Your task to perform on an android device: uninstall "ColorNote Notepad Notes" Image 0: 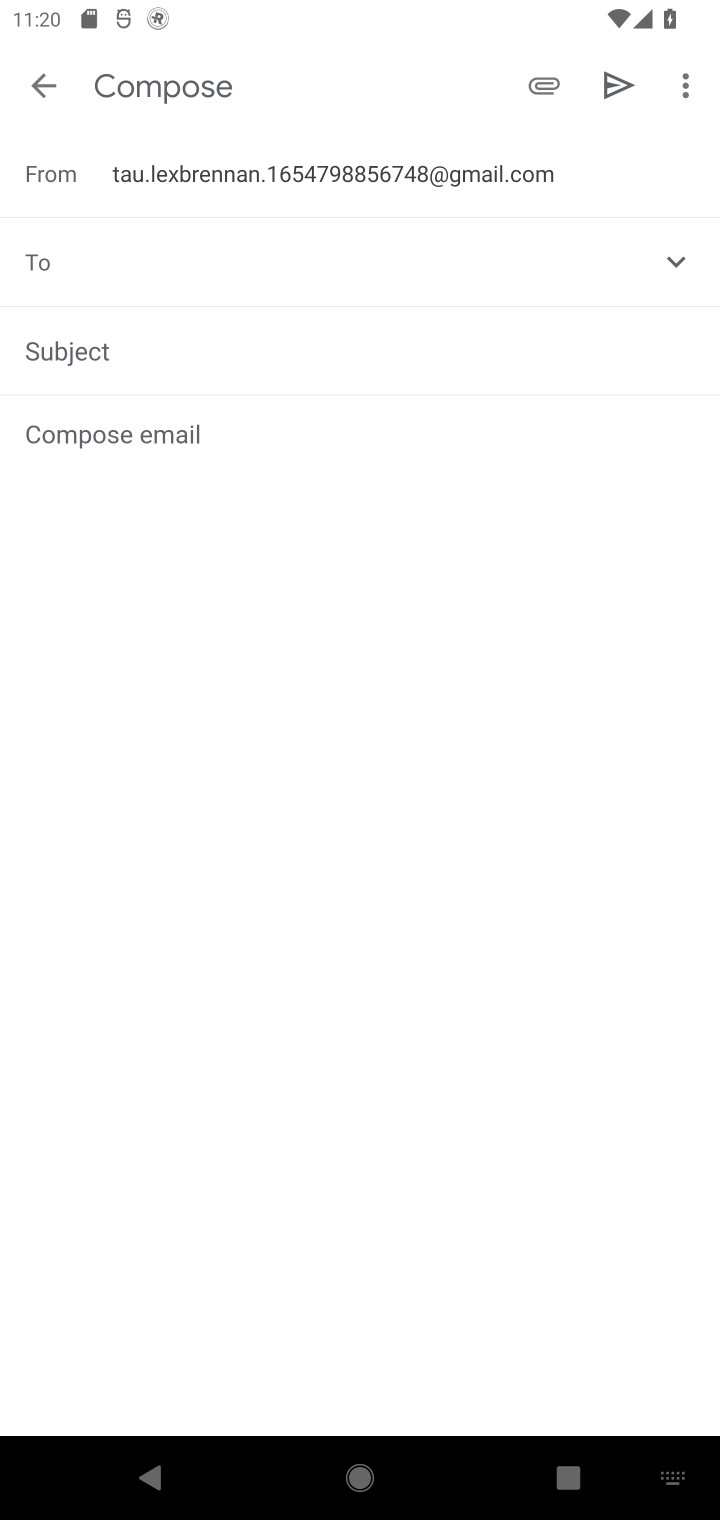
Step 0: press home button
Your task to perform on an android device: uninstall "ColorNote Notepad Notes" Image 1: 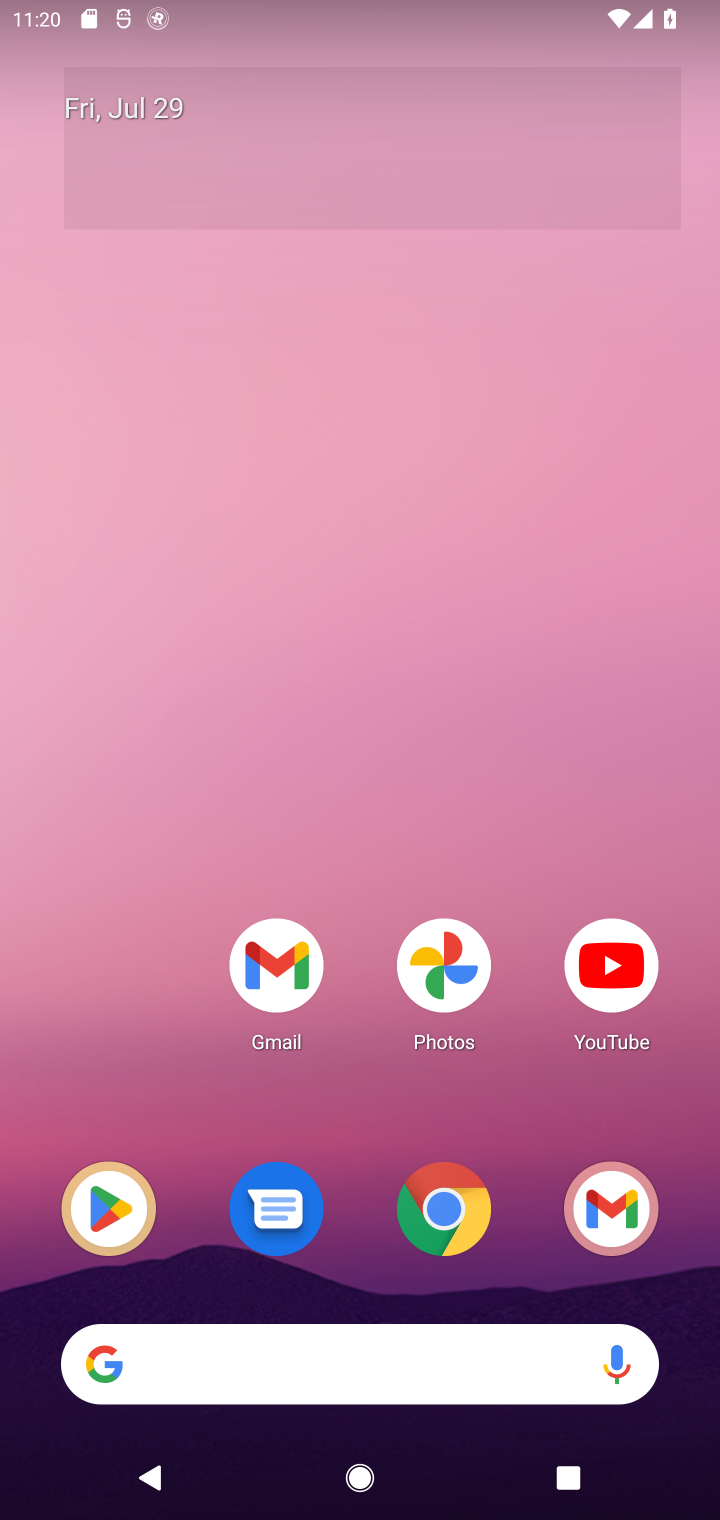
Step 1: drag from (489, 1073) to (462, 321)
Your task to perform on an android device: uninstall "ColorNote Notepad Notes" Image 2: 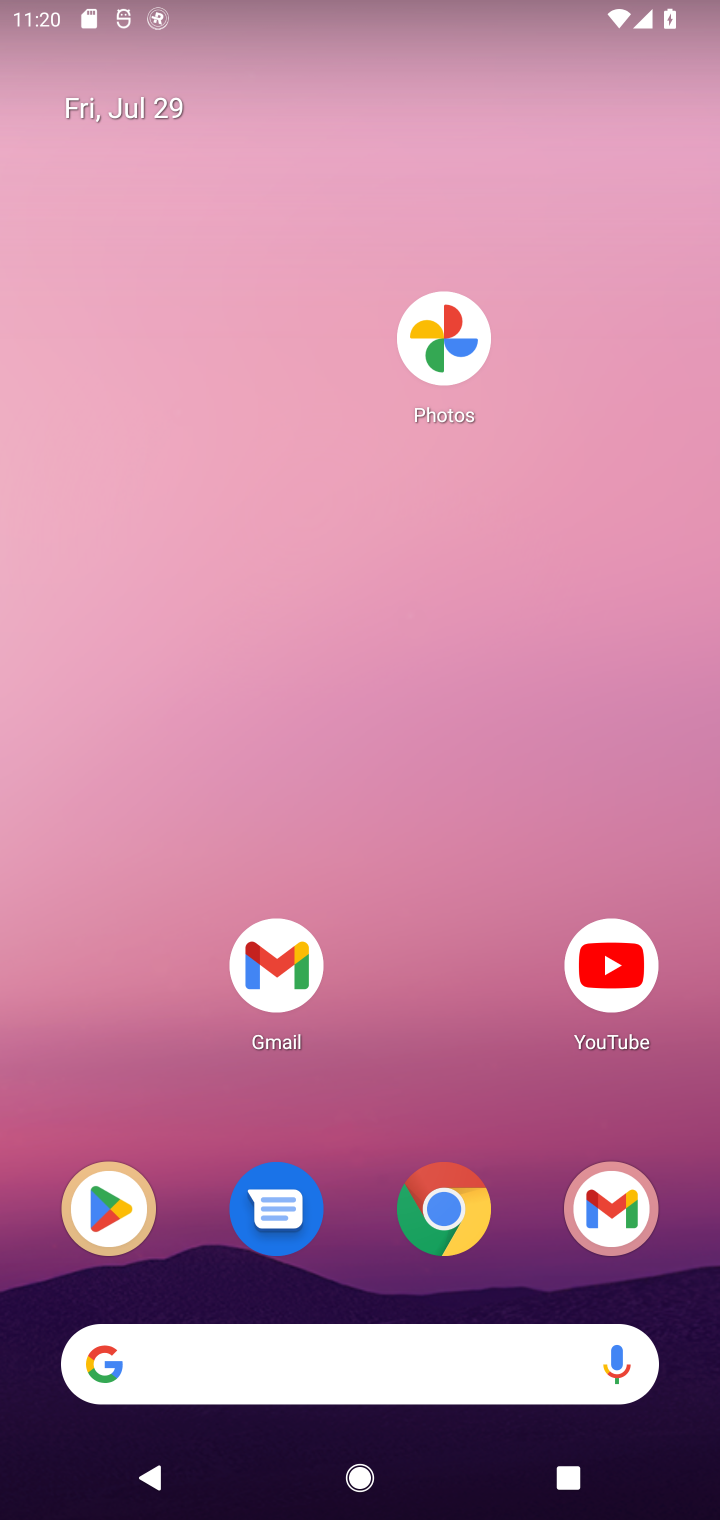
Step 2: drag from (466, 635) to (514, 209)
Your task to perform on an android device: uninstall "ColorNote Notepad Notes" Image 3: 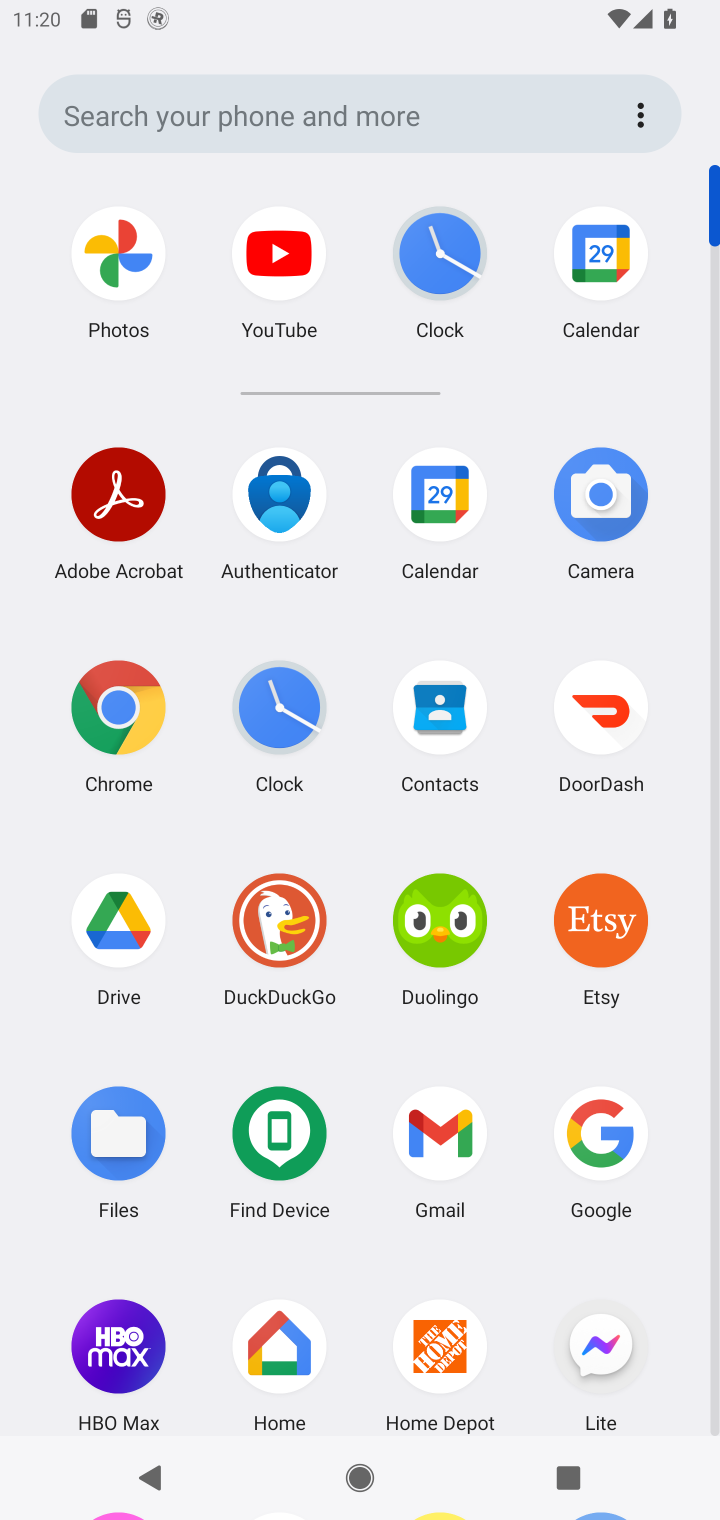
Step 3: drag from (524, 1232) to (510, 337)
Your task to perform on an android device: uninstall "ColorNote Notepad Notes" Image 4: 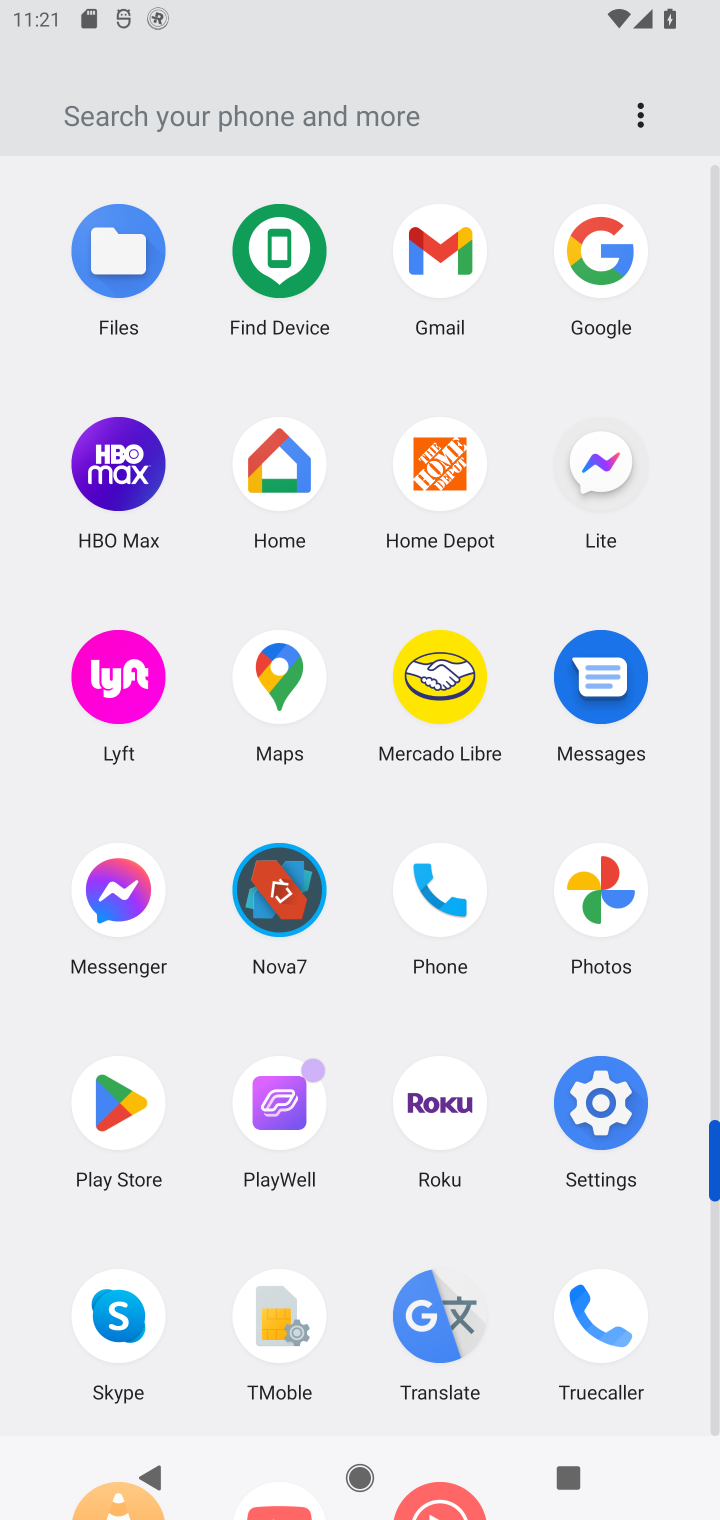
Step 4: click (101, 1124)
Your task to perform on an android device: uninstall "ColorNote Notepad Notes" Image 5: 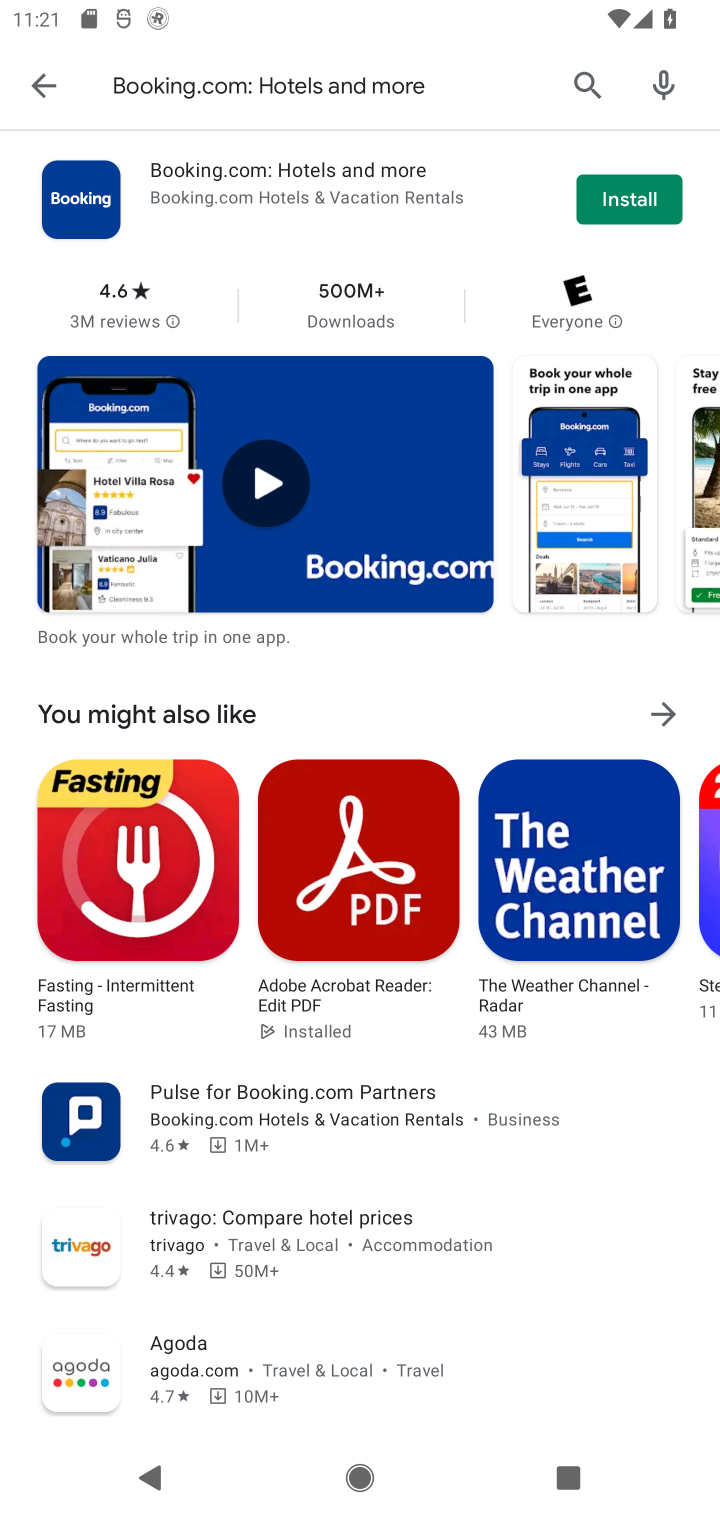
Step 5: click (299, 90)
Your task to perform on an android device: uninstall "ColorNote Notepad Notes" Image 6: 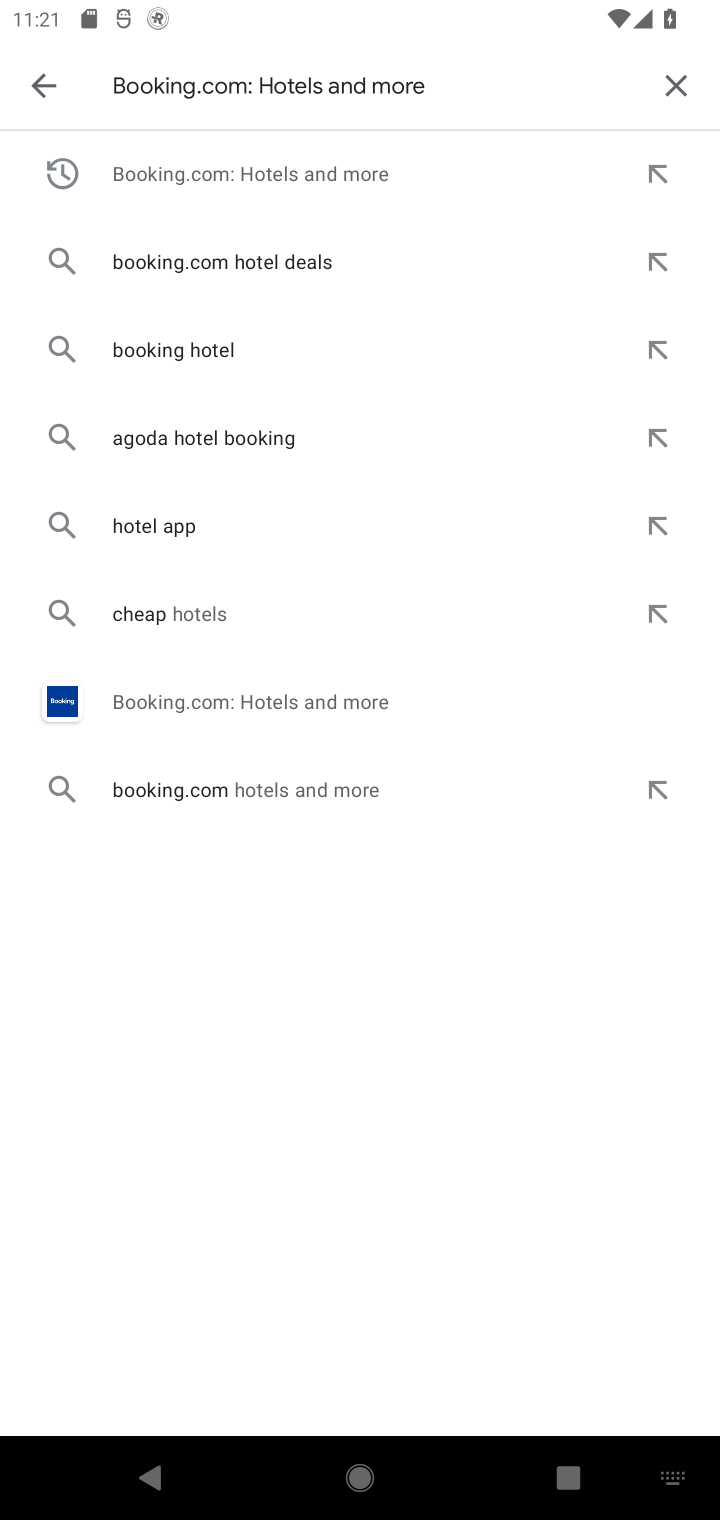
Step 6: click (679, 79)
Your task to perform on an android device: uninstall "ColorNote Notepad Notes" Image 7: 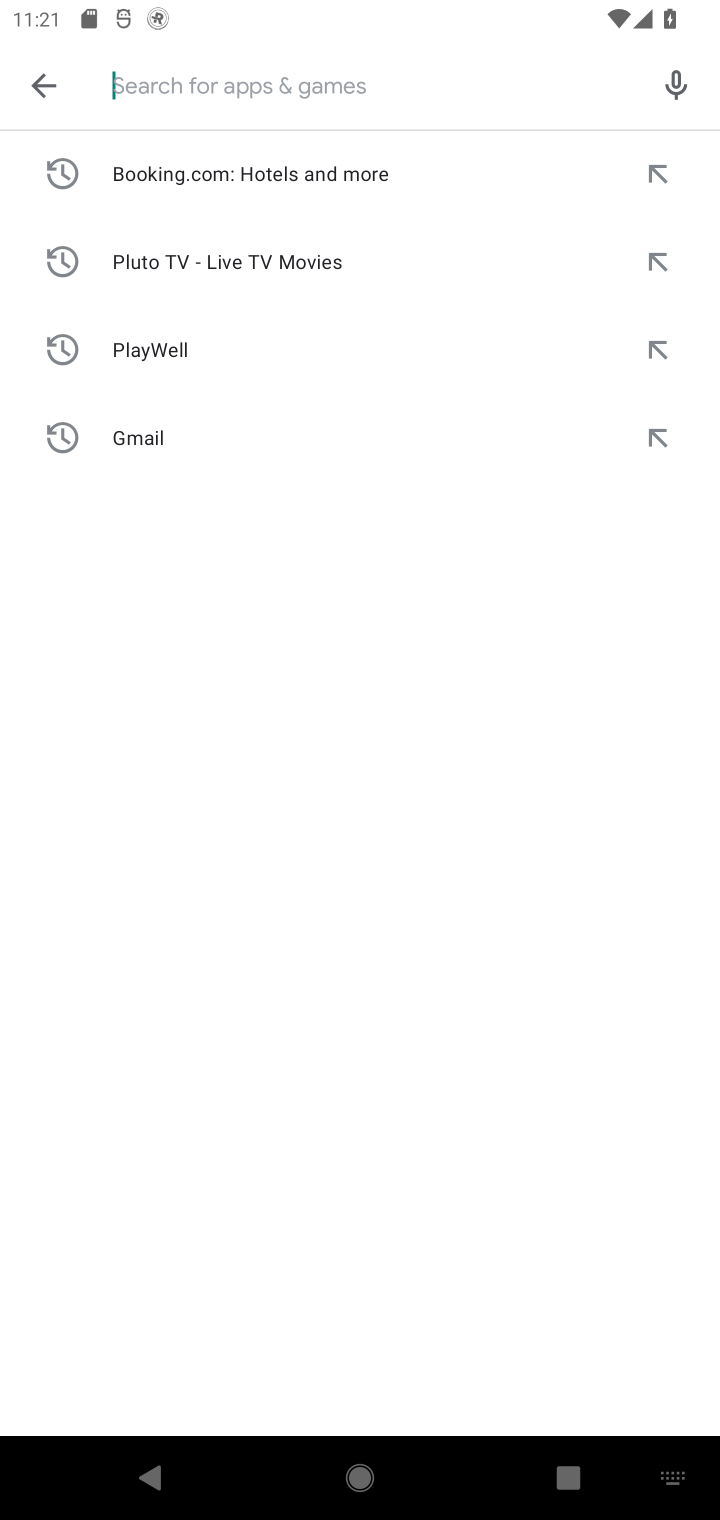
Step 7: type "ColorNote Notepad Notes"
Your task to perform on an android device: uninstall "ColorNote Notepad Notes" Image 8: 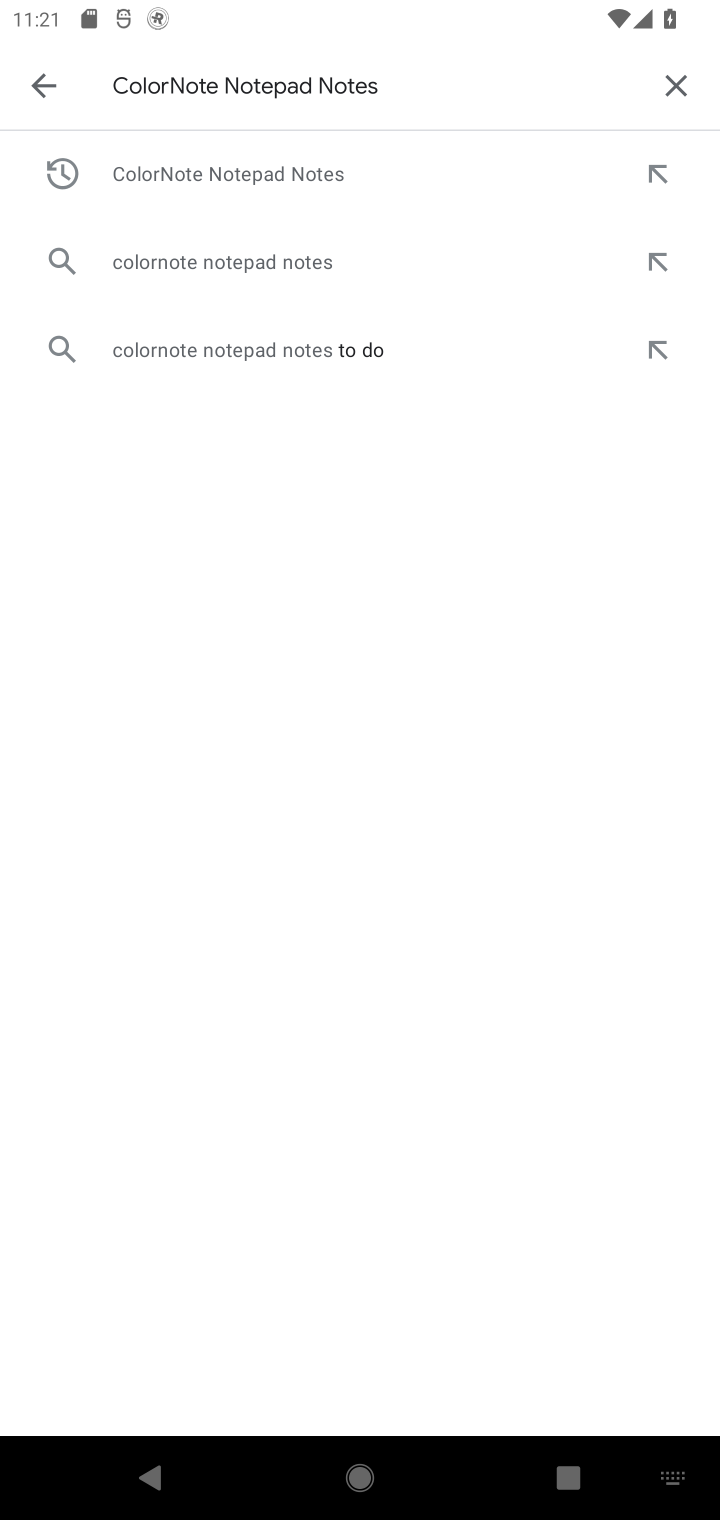
Step 8: press enter
Your task to perform on an android device: uninstall "ColorNote Notepad Notes" Image 9: 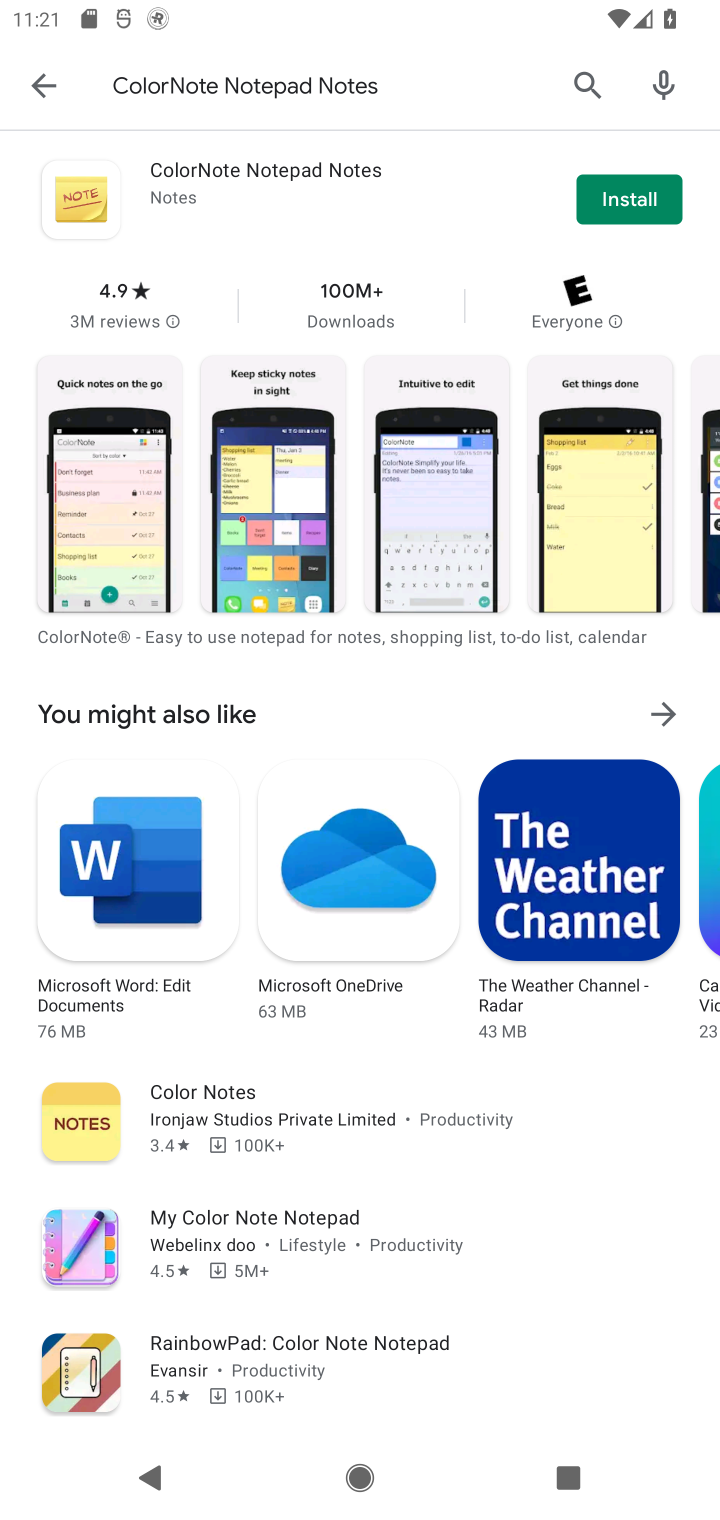
Step 9: task complete